Your task to perform on an android device: check the backup settings in the google photos Image 0: 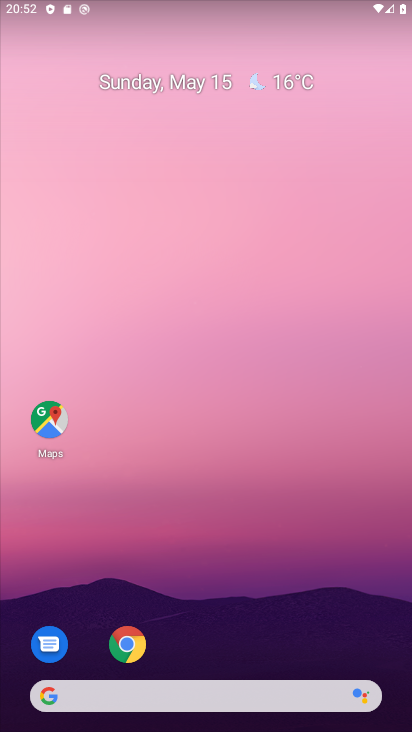
Step 0: drag from (218, 562) to (305, 14)
Your task to perform on an android device: check the backup settings in the google photos Image 1: 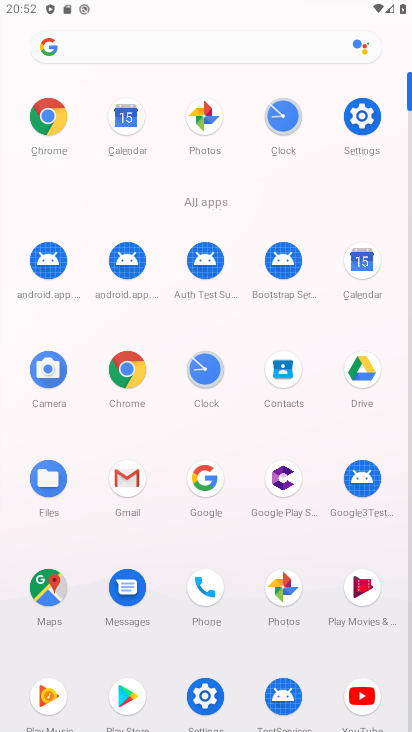
Step 1: click (292, 590)
Your task to perform on an android device: check the backup settings in the google photos Image 2: 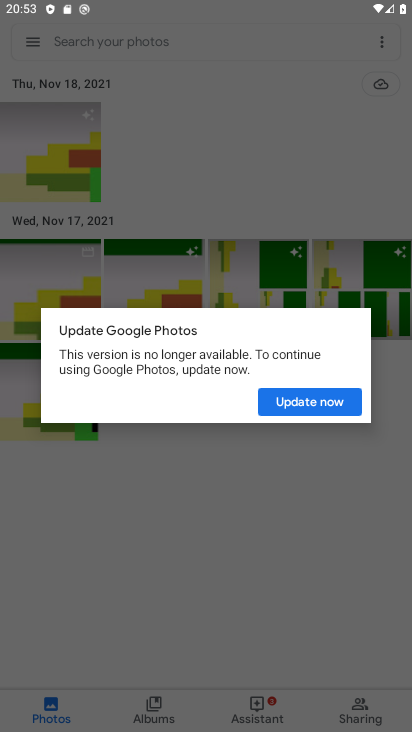
Step 2: press home button
Your task to perform on an android device: check the backup settings in the google photos Image 3: 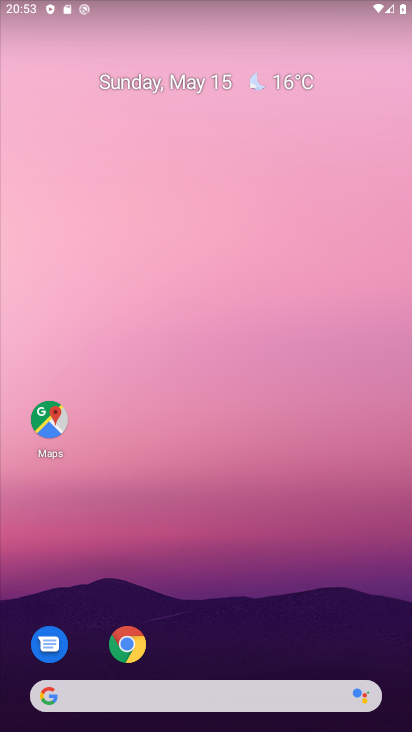
Step 3: drag from (203, 642) to (331, 66)
Your task to perform on an android device: check the backup settings in the google photos Image 4: 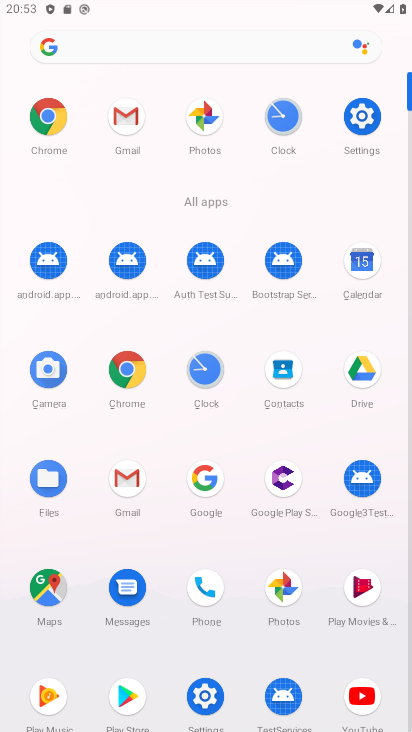
Step 4: click (291, 593)
Your task to perform on an android device: check the backup settings in the google photos Image 5: 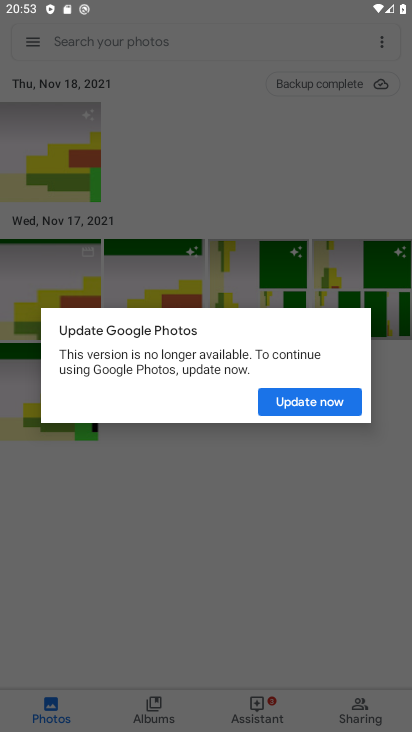
Step 5: click (315, 404)
Your task to perform on an android device: check the backup settings in the google photos Image 6: 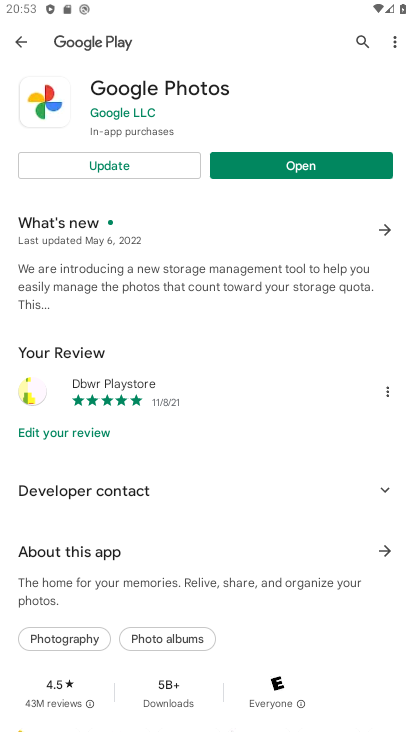
Step 6: click (255, 169)
Your task to perform on an android device: check the backup settings in the google photos Image 7: 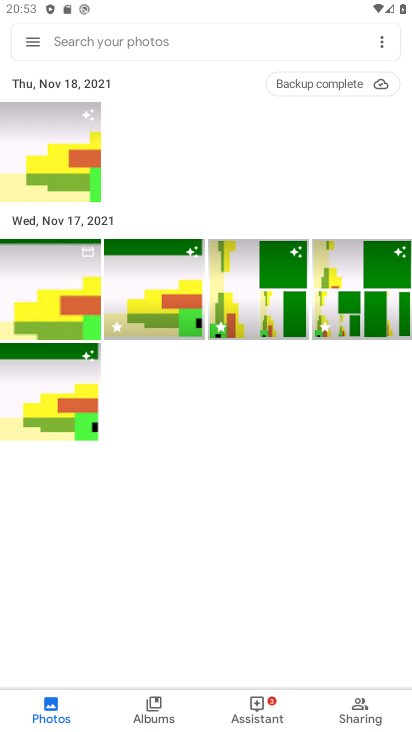
Step 7: click (28, 43)
Your task to perform on an android device: check the backup settings in the google photos Image 8: 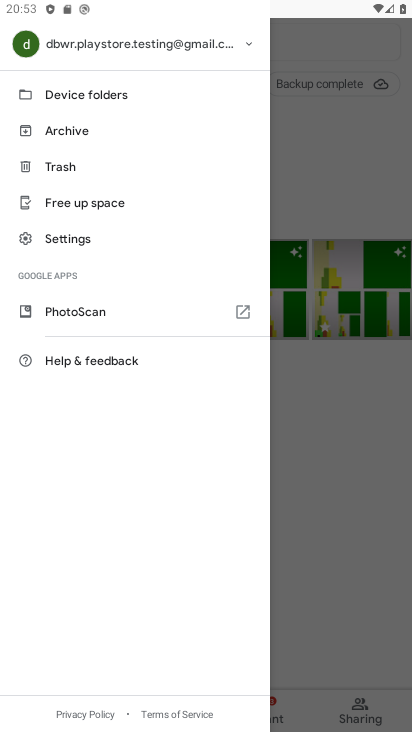
Step 8: click (82, 232)
Your task to perform on an android device: check the backup settings in the google photos Image 9: 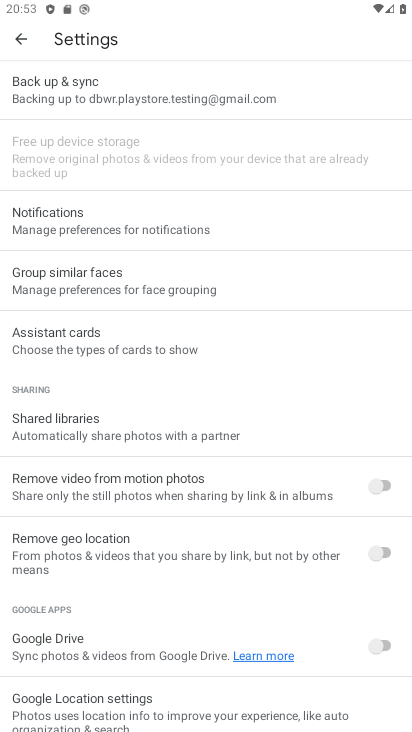
Step 9: click (134, 75)
Your task to perform on an android device: check the backup settings in the google photos Image 10: 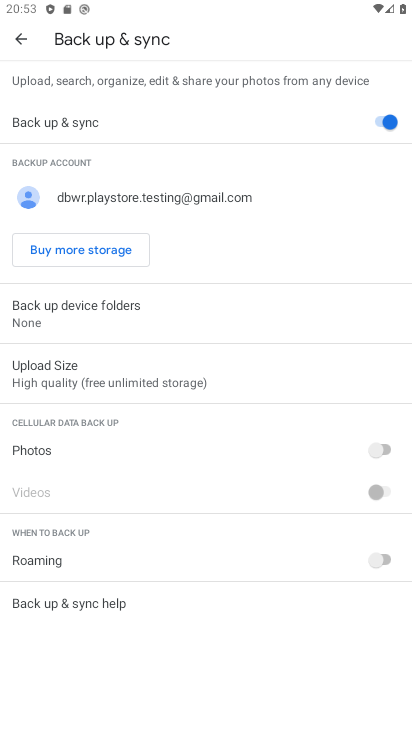
Step 10: task complete